Your task to perform on an android device: toggle priority inbox in the gmail app Image 0: 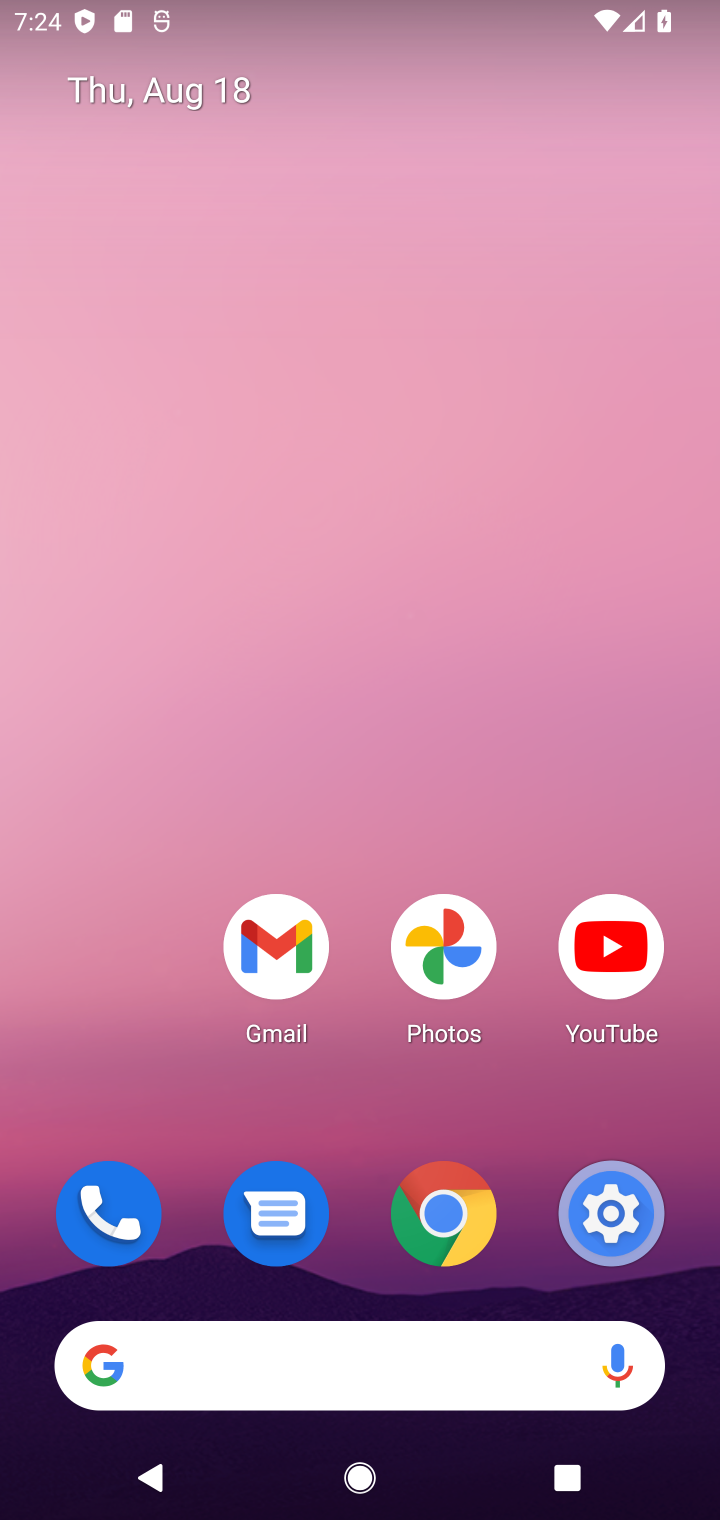
Step 0: task complete